Your task to perform on an android device: check storage Image 0: 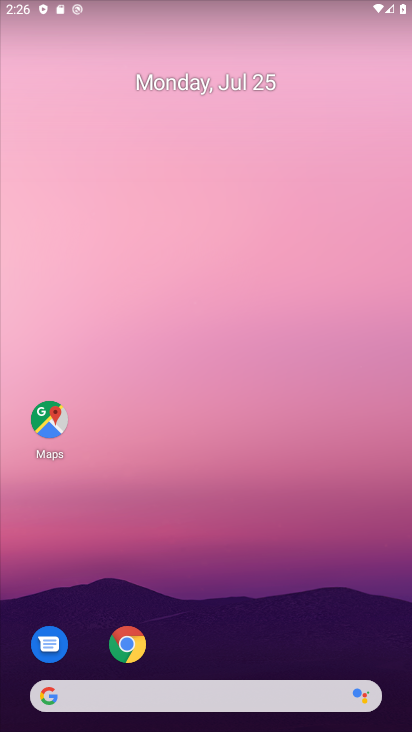
Step 0: drag from (329, 682) to (385, 202)
Your task to perform on an android device: check storage Image 1: 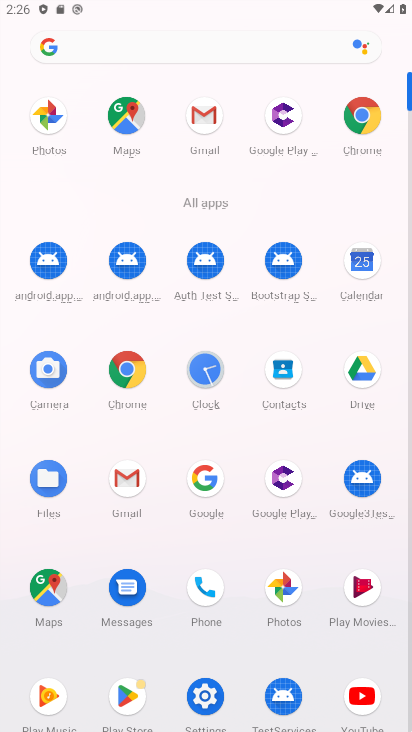
Step 1: click (213, 682)
Your task to perform on an android device: check storage Image 2: 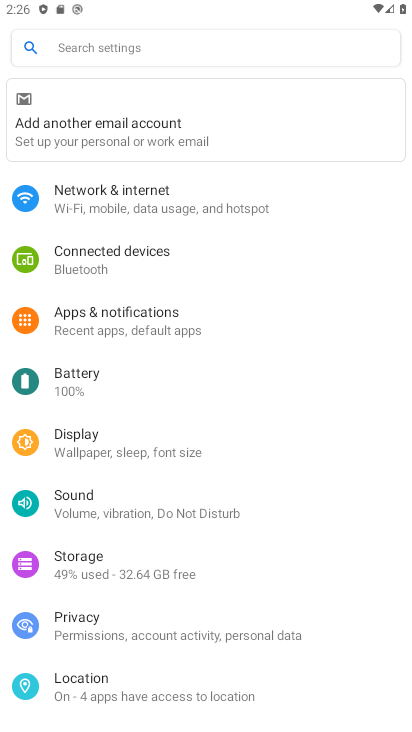
Step 2: click (117, 567)
Your task to perform on an android device: check storage Image 3: 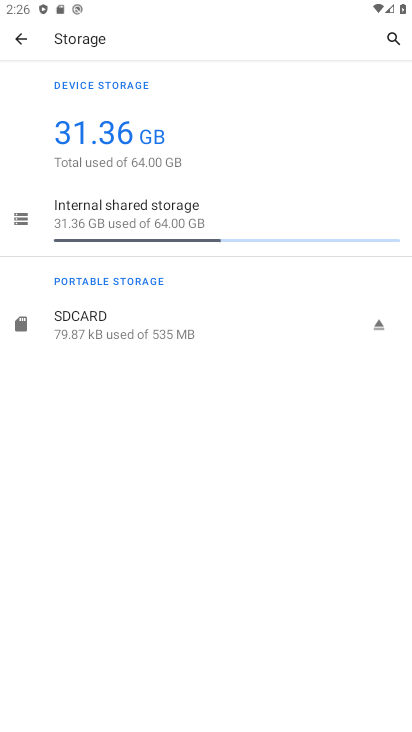
Step 3: task complete